Your task to perform on an android device: turn off wifi Image 0: 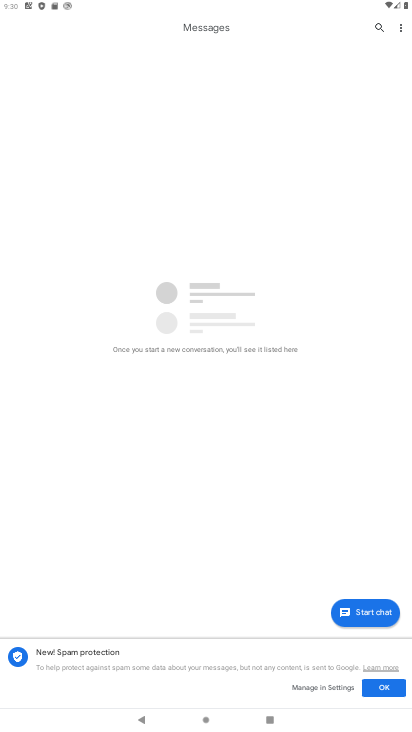
Step 0: press home button
Your task to perform on an android device: turn off wifi Image 1: 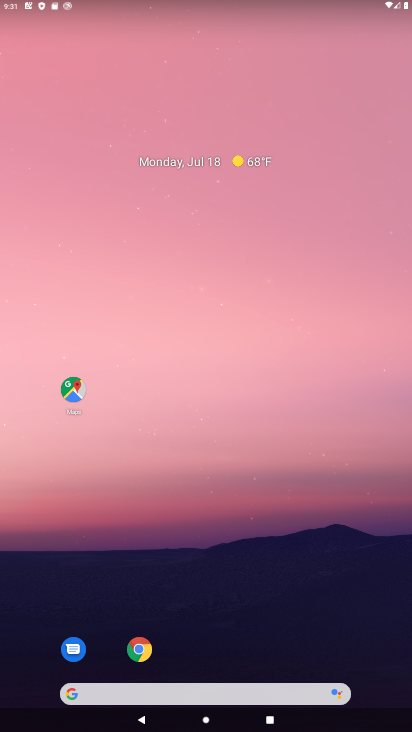
Step 1: drag from (180, 717) to (163, 87)
Your task to perform on an android device: turn off wifi Image 2: 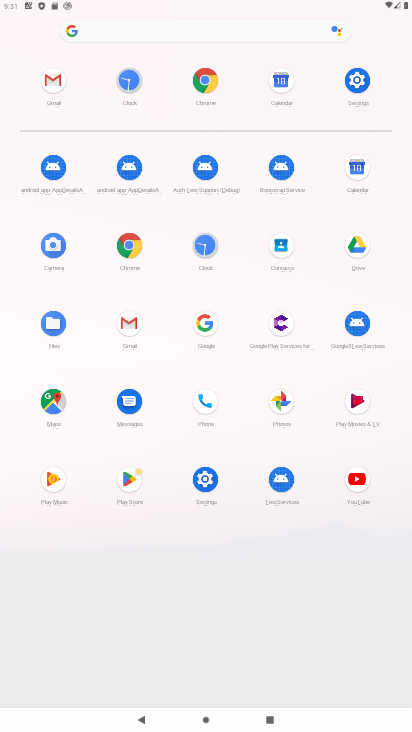
Step 2: click (365, 84)
Your task to perform on an android device: turn off wifi Image 3: 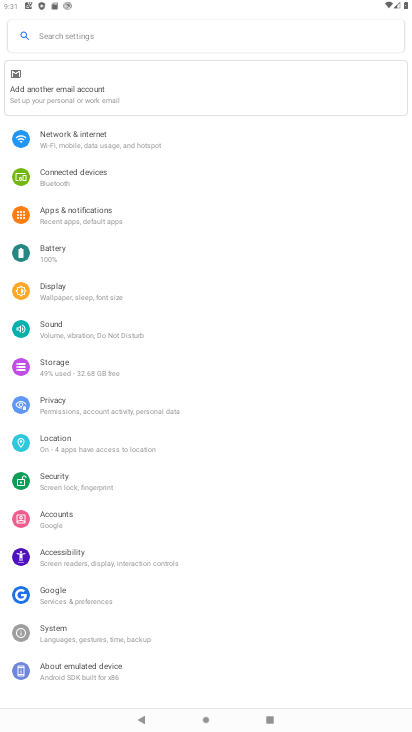
Step 3: click (134, 145)
Your task to perform on an android device: turn off wifi Image 4: 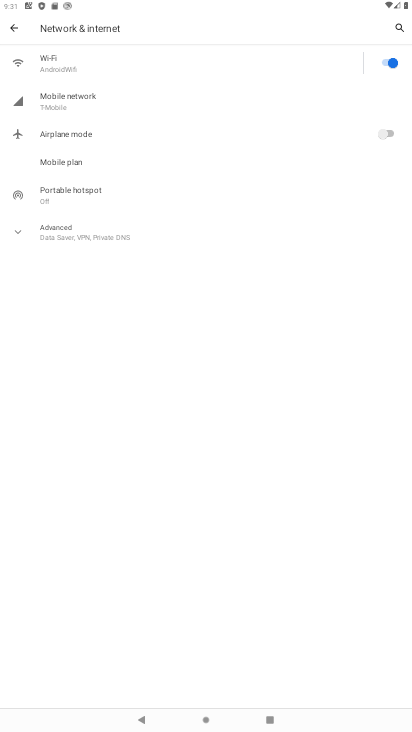
Step 4: click (393, 59)
Your task to perform on an android device: turn off wifi Image 5: 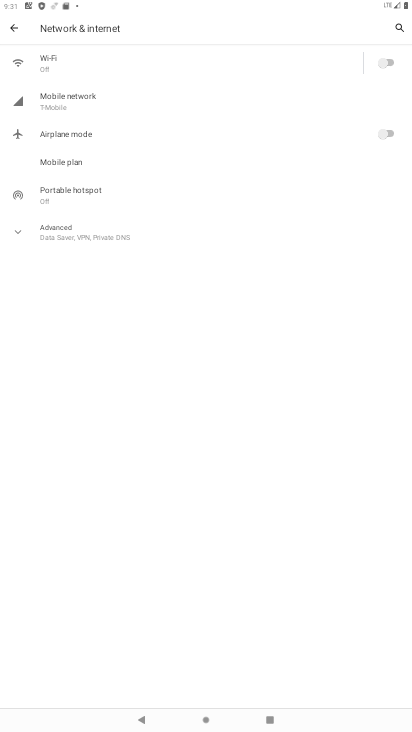
Step 5: task complete